Your task to perform on an android device: Toggle the flashlight Image 0: 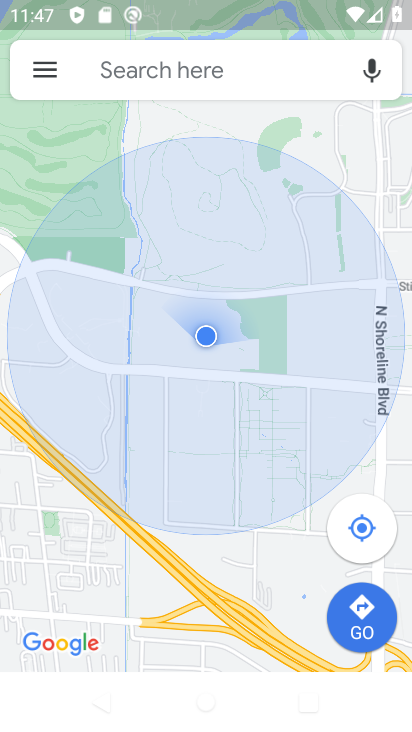
Step 0: press home button
Your task to perform on an android device: Toggle the flashlight Image 1: 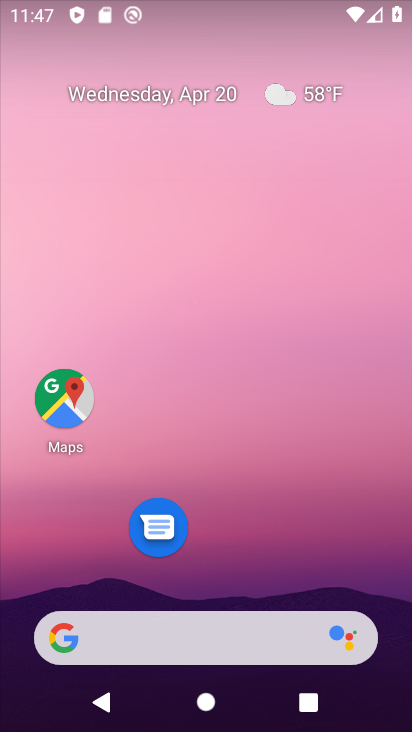
Step 1: drag from (216, 701) to (189, 97)
Your task to perform on an android device: Toggle the flashlight Image 2: 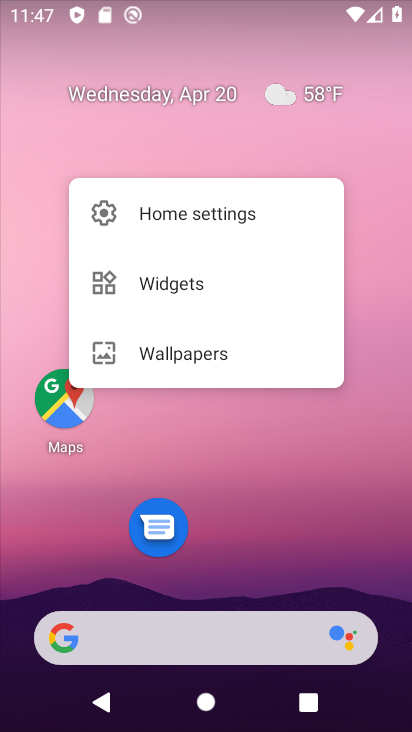
Step 2: click (253, 452)
Your task to perform on an android device: Toggle the flashlight Image 3: 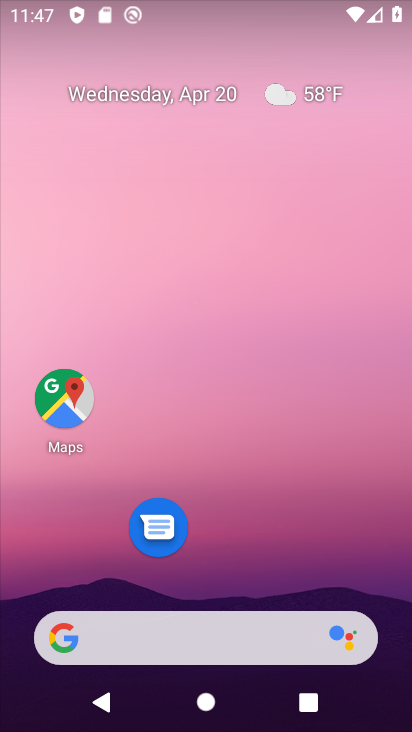
Step 3: drag from (229, 723) to (190, 124)
Your task to perform on an android device: Toggle the flashlight Image 4: 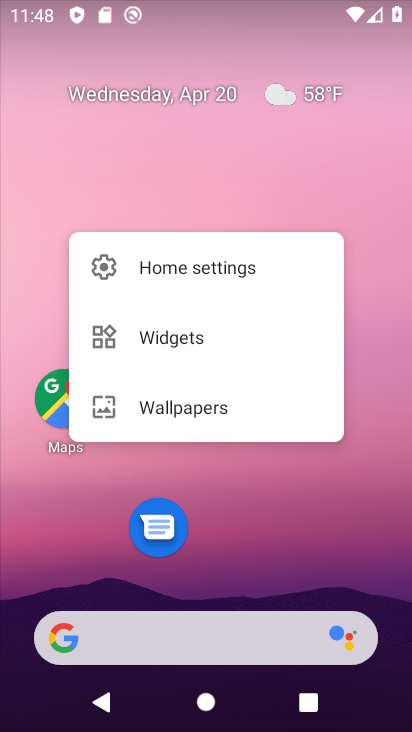
Step 4: click (214, 184)
Your task to perform on an android device: Toggle the flashlight Image 5: 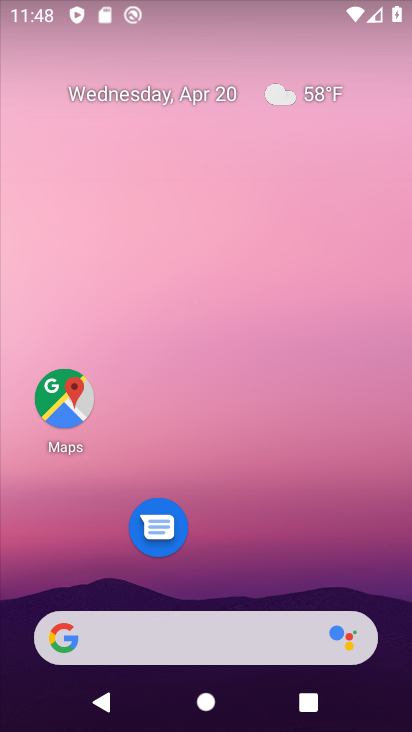
Step 5: drag from (206, 727) to (179, 117)
Your task to perform on an android device: Toggle the flashlight Image 6: 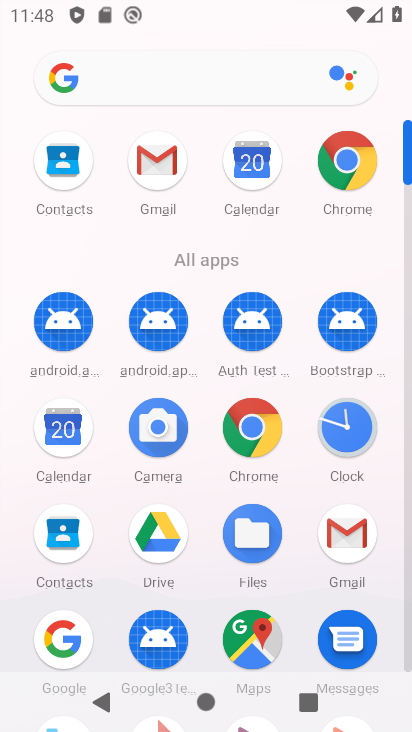
Step 6: drag from (194, 600) to (163, 180)
Your task to perform on an android device: Toggle the flashlight Image 7: 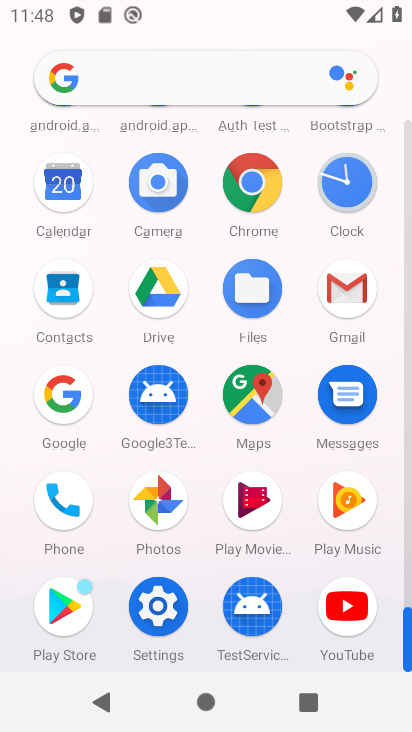
Step 7: click (153, 615)
Your task to perform on an android device: Toggle the flashlight Image 8: 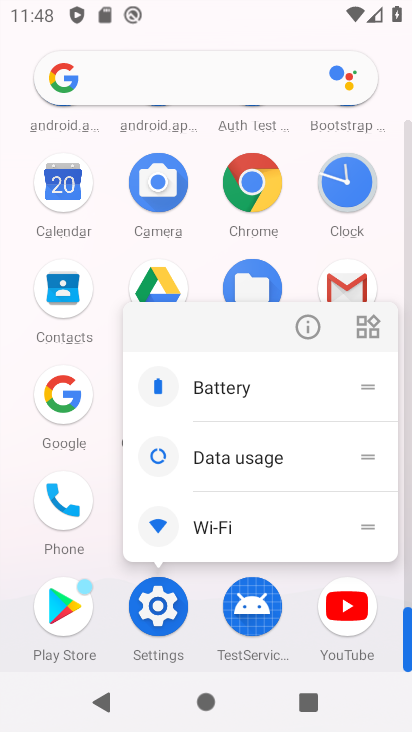
Step 8: click (160, 606)
Your task to perform on an android device: Toggle the flashlight Image 9: 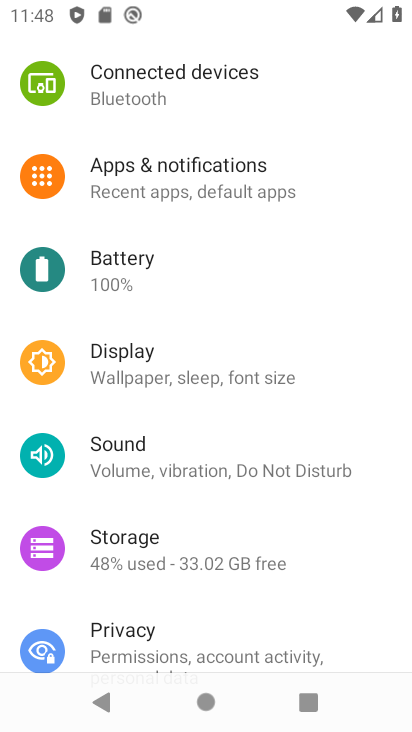
Step 9: task complete